Your task to perform on an android device: Open the Play Movies app and select the watchlist tab. Image 0: 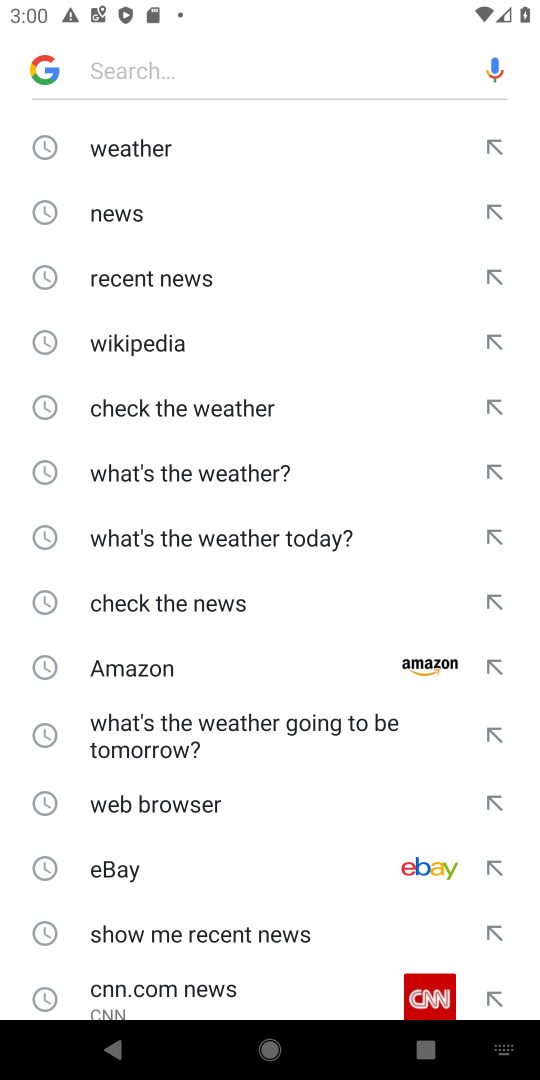
Step 0: press back button
Your task to perform on an android device: Open the Play Movies app and select the watchlist tab. Image 1: 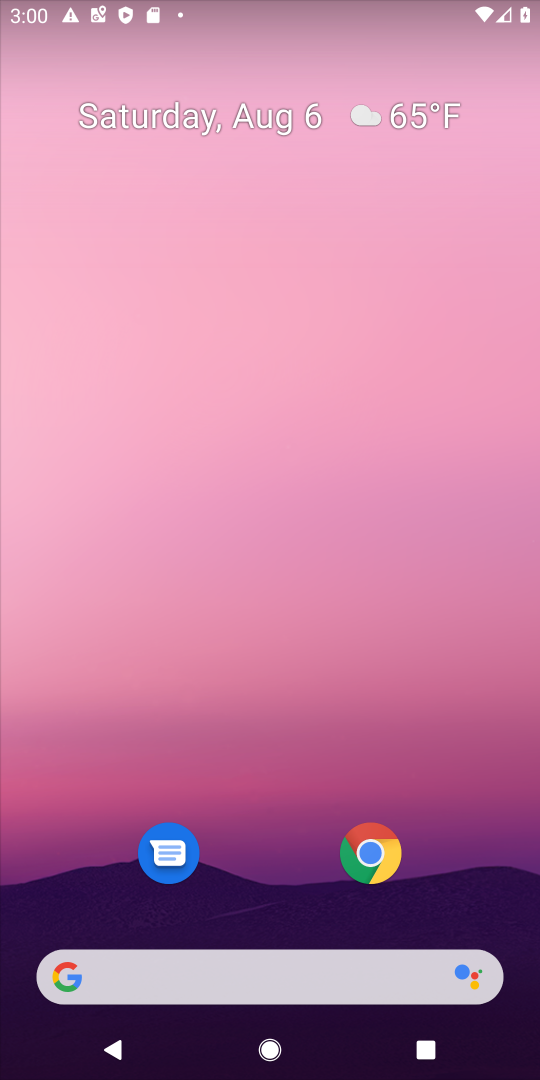
Step 1: drag from (234, 804) to (353, 86)
Your task to perform on an android device: Open the Play Movies app and select the watchlist tab. Image 2: 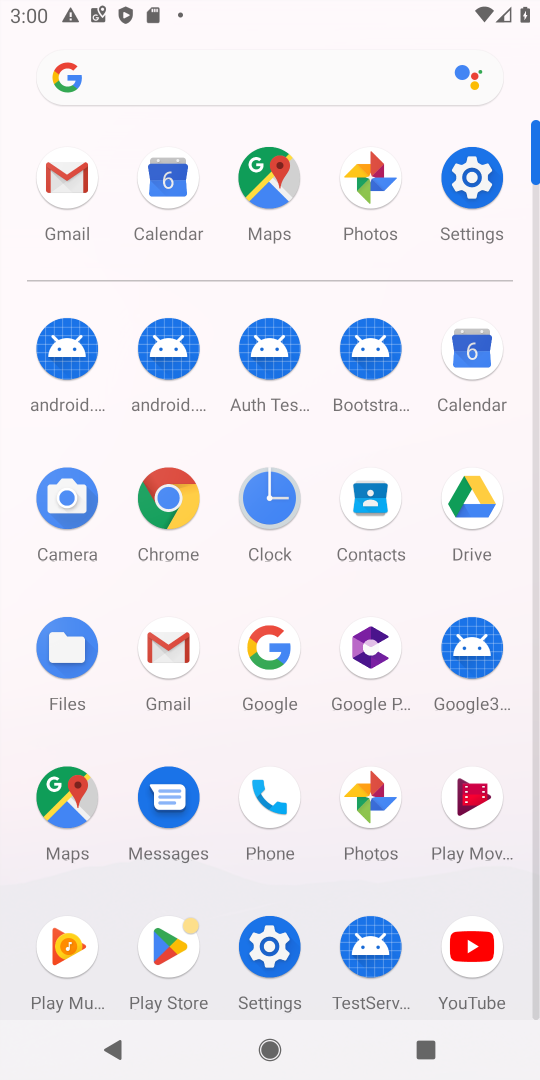
Step 2: click (483, 804)
Your task to perform on an android device: Open the Play Movies app and select the watchlist tab. Image 3: 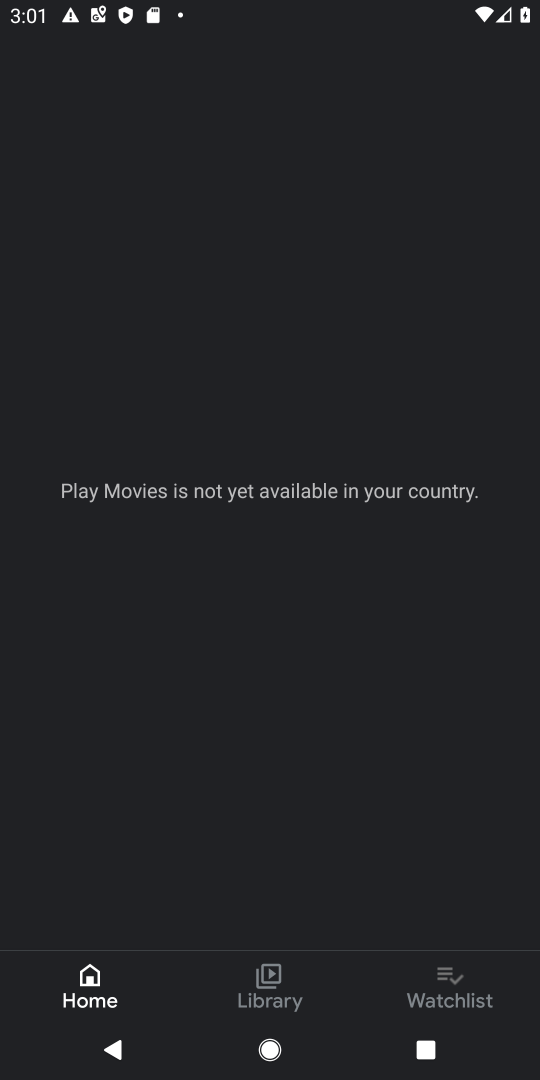
Step 3: click (423, 1001)
Your task to perform on an android device: Open the Play Movies app and select the watchlist tab. Image 4: 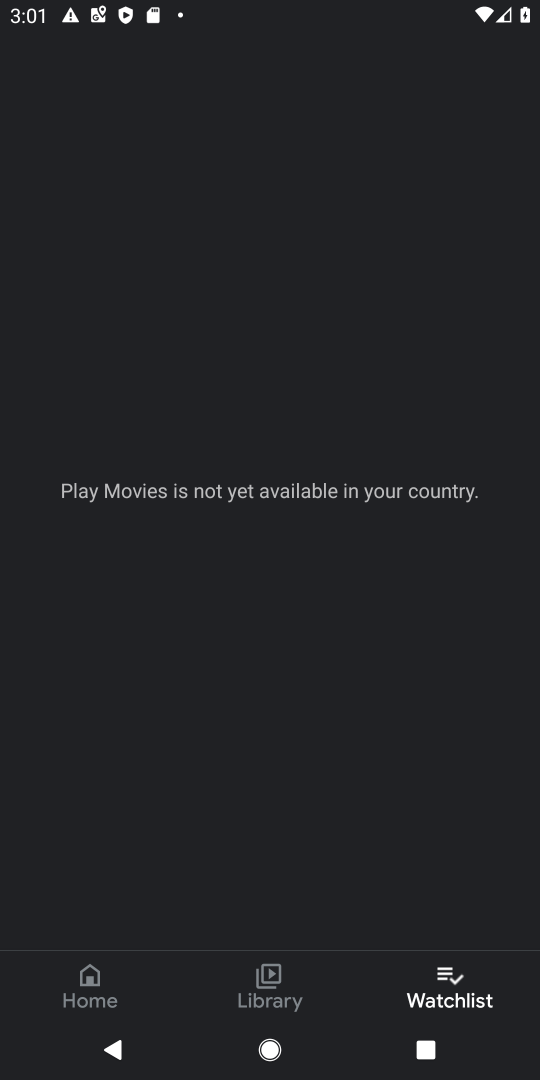
Step 4: task complete